Your task to perform on an android device: open app "Spotify: Music and Podcasts" (install if not already installed) and enter user name: "principled@inbox.com" and password: "arrests" Image 0: 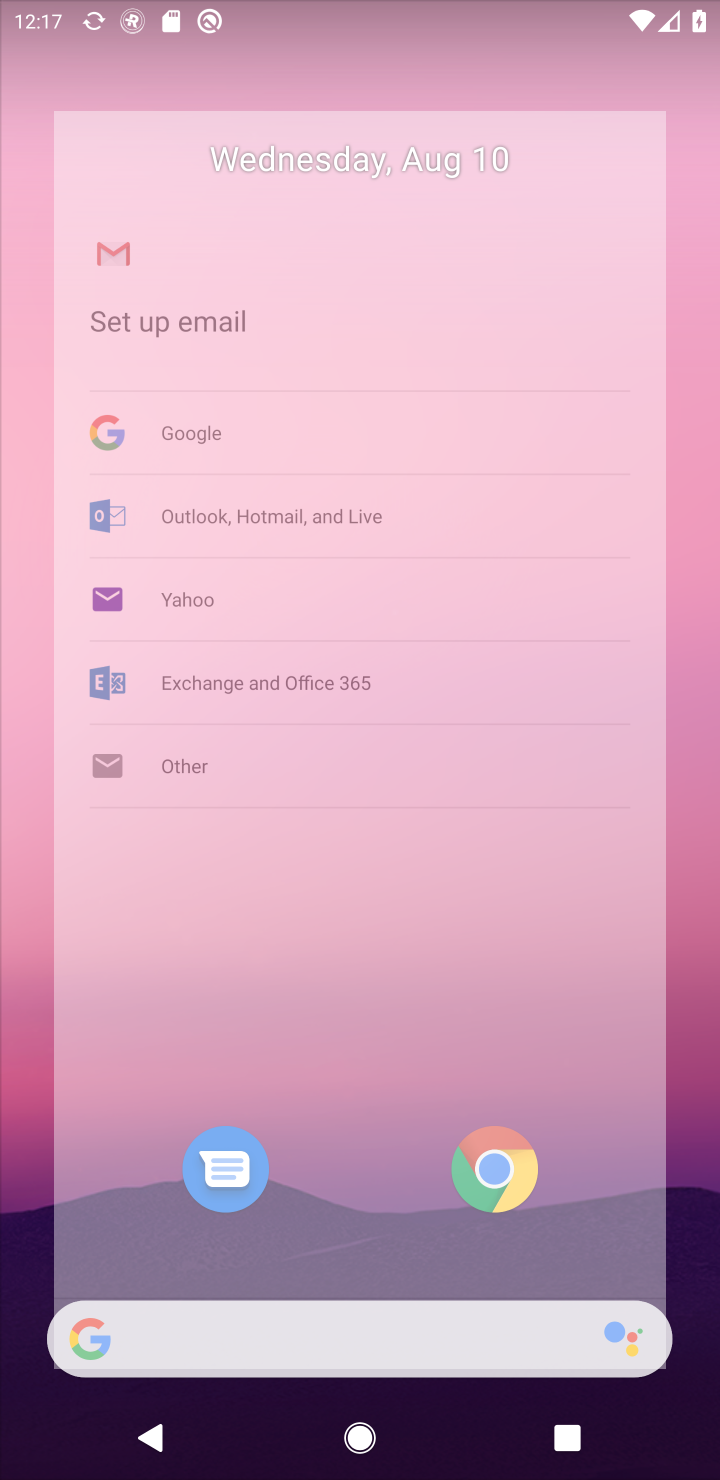
Step 0: press home button
Your task to perform on an android device: open app "Spotify: Music and Podcasts" (install if not already installed) and enter user name: "principled@inbox.com" and password: "arrests" Image 1: 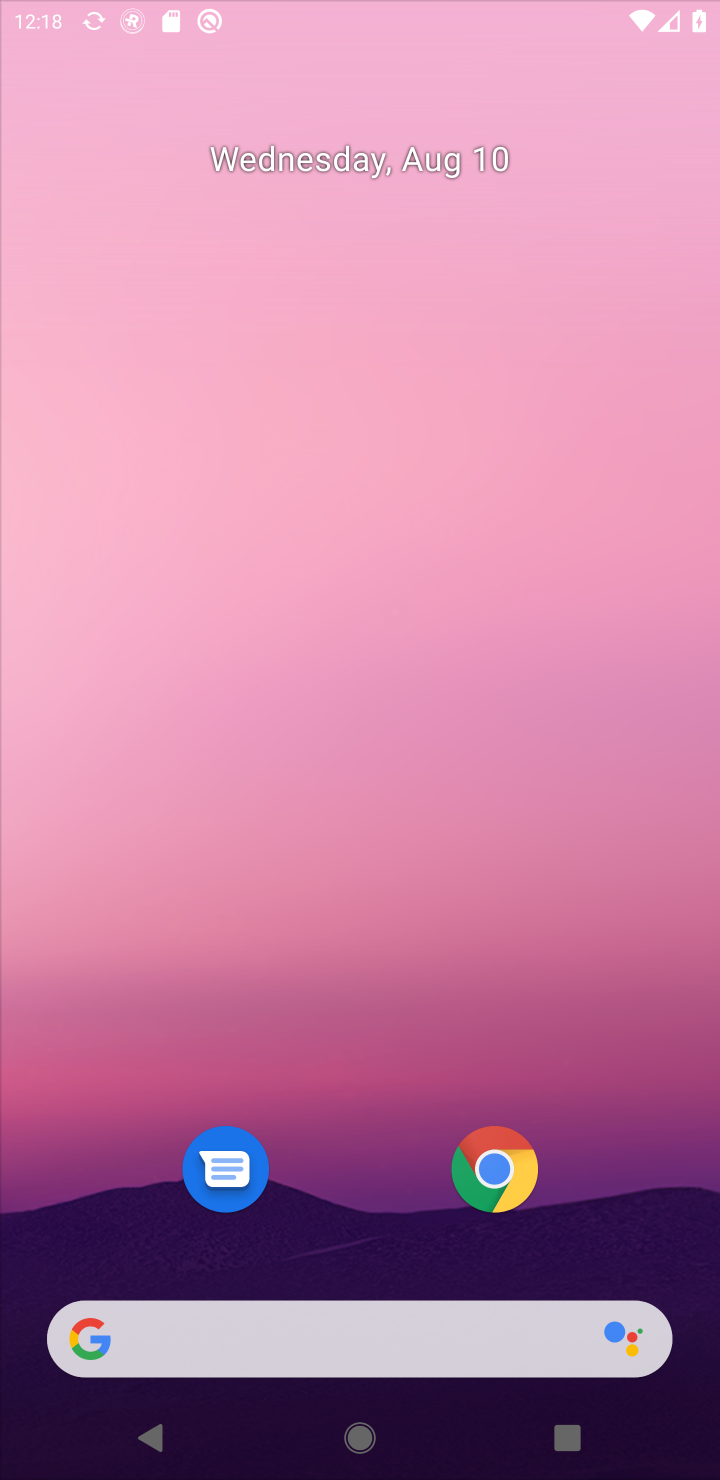
Step 1: press home button
Your task to perform on an android device: open app "Spotify: Music and Podcasts" (install if not already installed) and enter user name: "principled@inbox.com" and password: "arrests" Image 2: 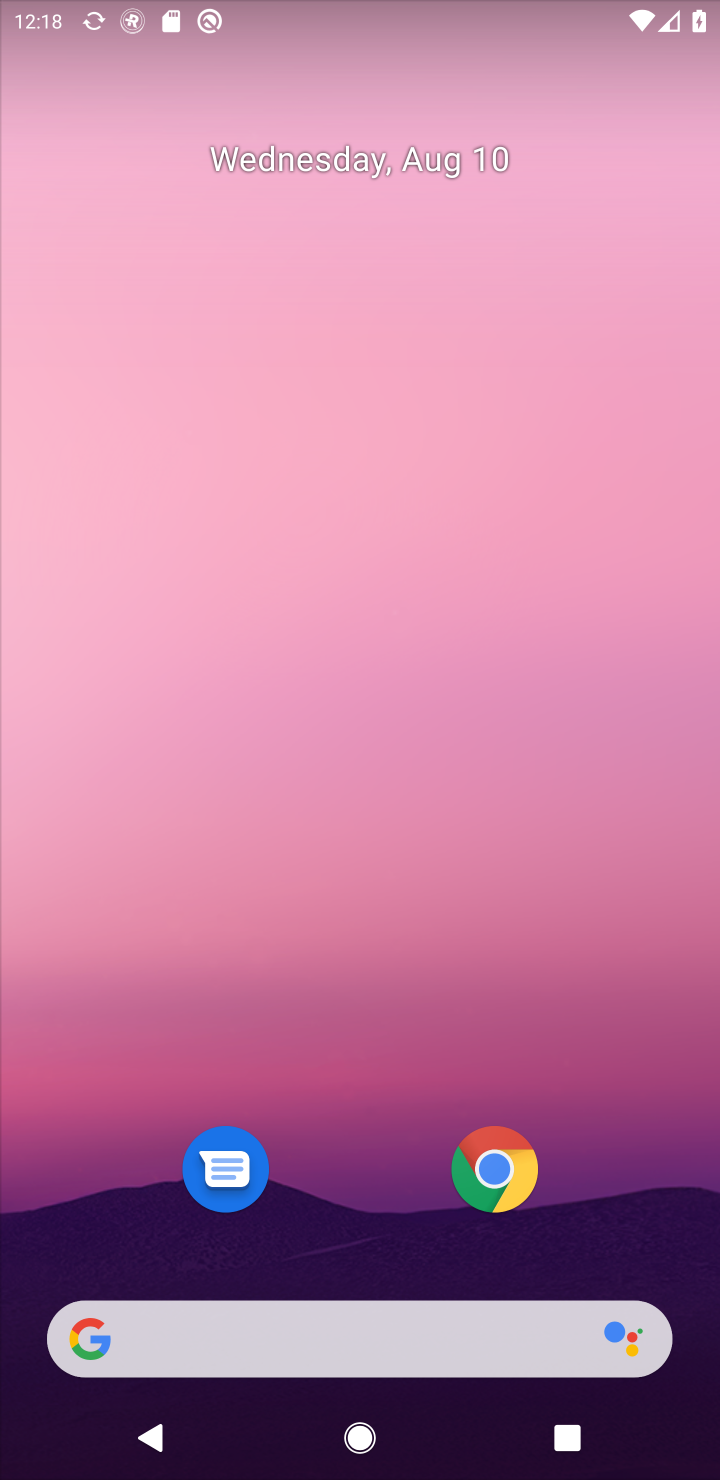
Step 2: drag from (616, 1239) to (668, 95)
Your task to perform on an android device: open app "Spotify: Music and Podcasts" (install if not already installed) and enter user name: "principled@inbox.com" and password: "arrests" Image 3: 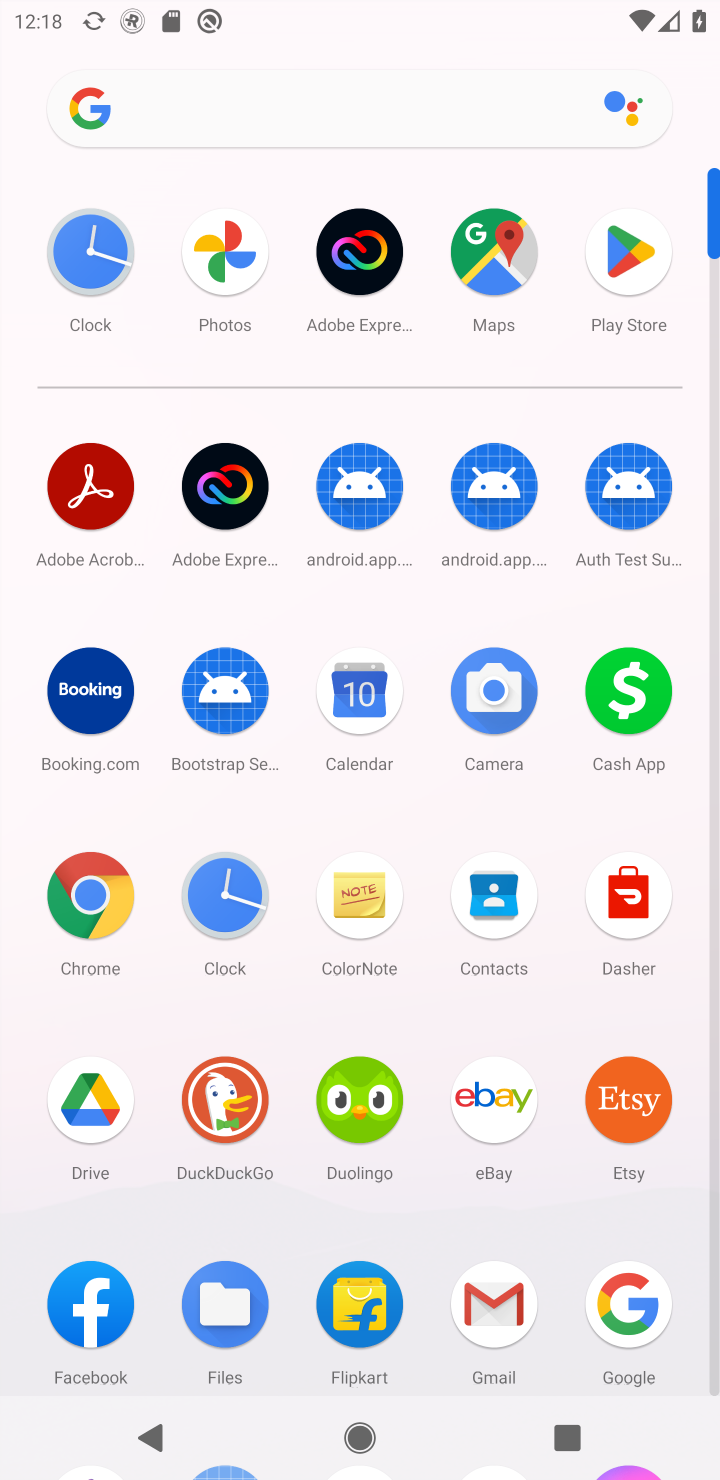
Step 3: click (628, 258)
Your task to perform on an android device: open app "Spotify: Music and Podcasts" (install if not already installed) and enter user name: "principled@inbox.com" and password: "arrests" Image 4: 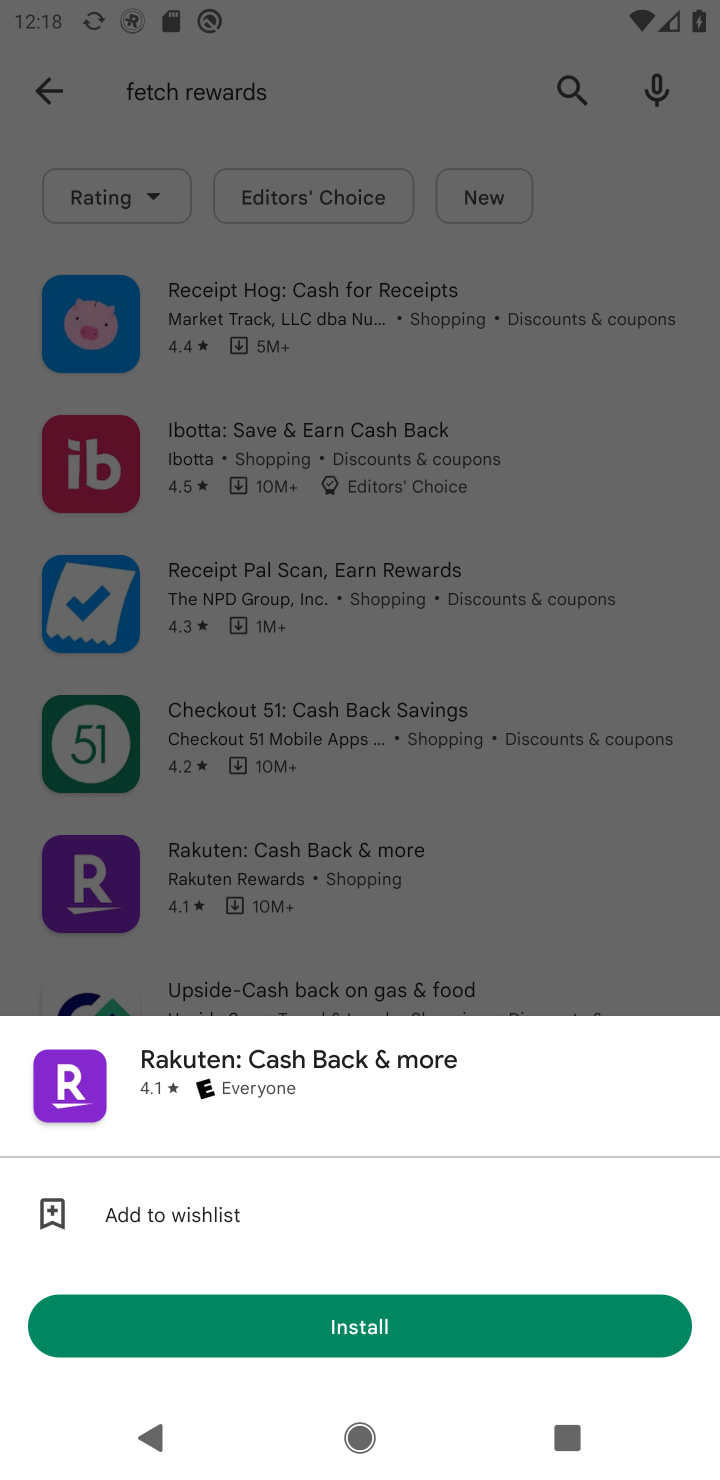
Step 4: press back button
Your task to perform on an android device: open app "Spotify: Music and Podcasts" (install if not already installed) and enter user name: "principled@inbox.com" and password: "arrests" Image 5: 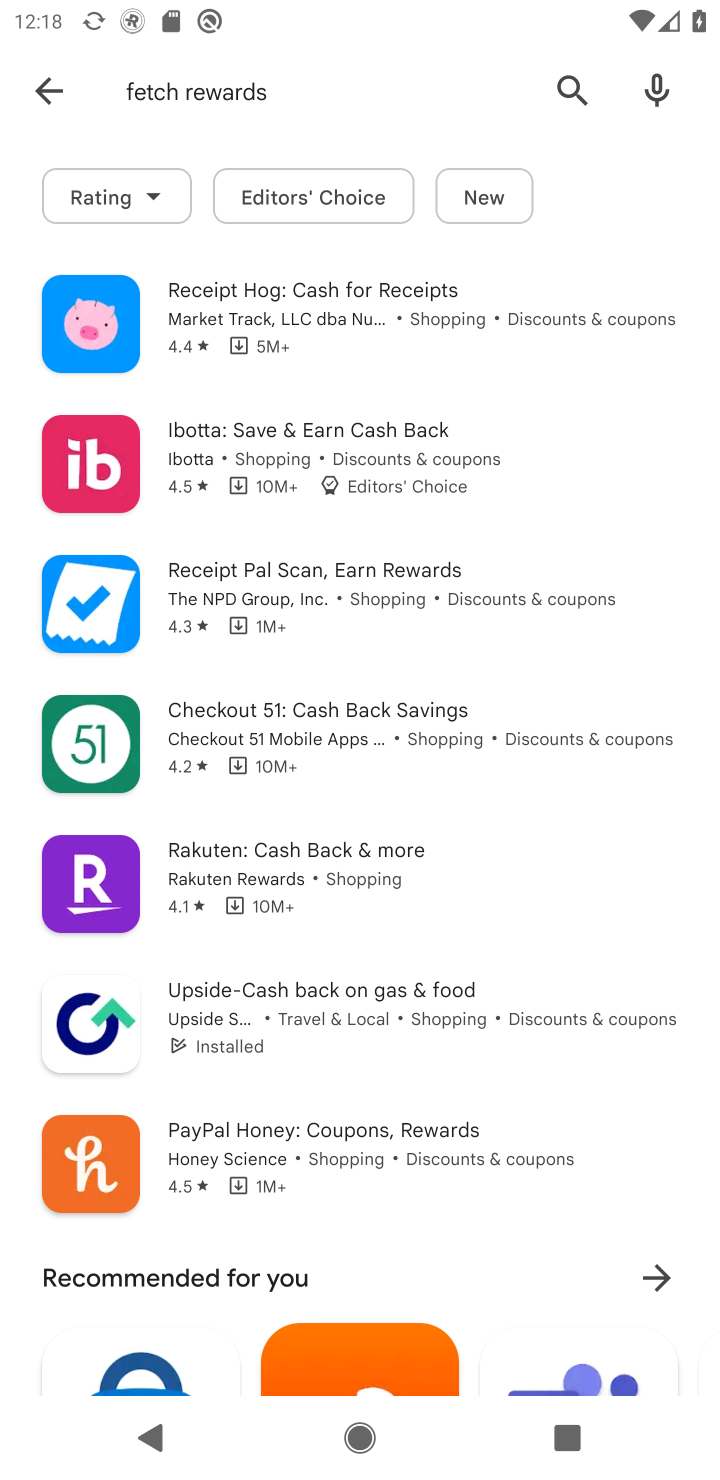
Step 5: click (578, 97)
Your task to perform on an android device: open app "Spotify: Music and Podcasts" (install if not already installed) and enter user name: "principled@inbox.com" and password: "arrests" Image 6: 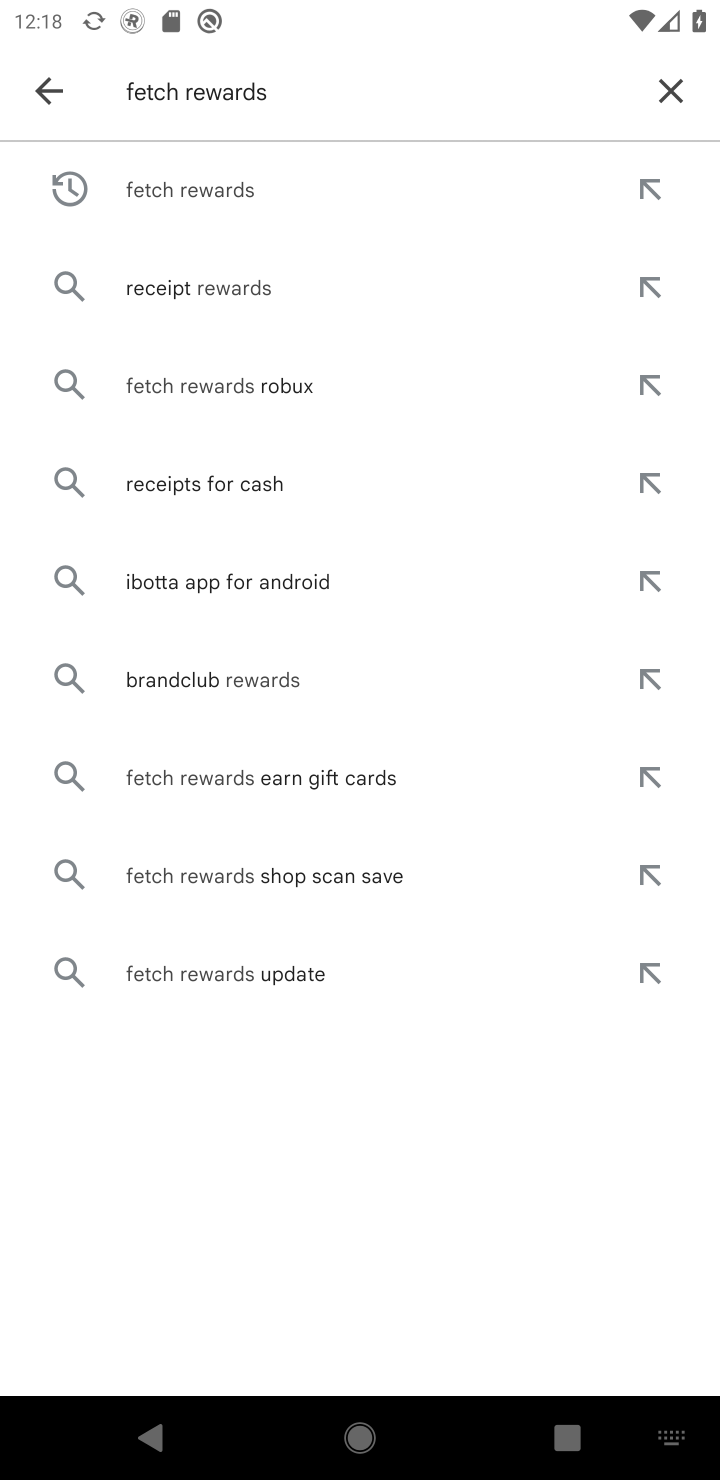
Step 6: click (672, 86)
Your task to perform on an android device: open app "Spotify: Music and Podcasts" (install if not already installed) and enter user name: "principled@inbox.com" and password: "arrests" Image 7: 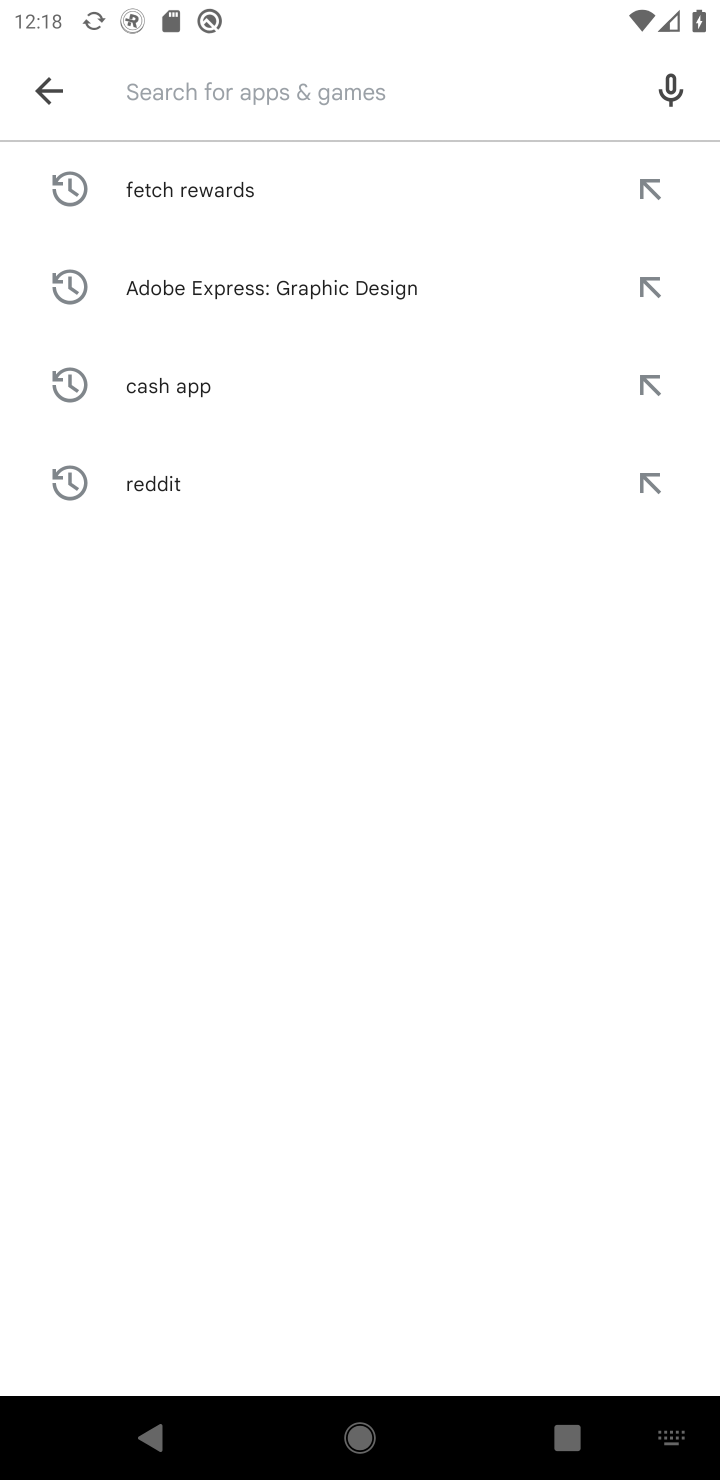
Step 7: press enter
Your task to perform on an android device: open app "Spotify: Music and Podcasts" (install if not already installed) and enter user name: "principled@inbox.com" and password: "arrests" Image 8: 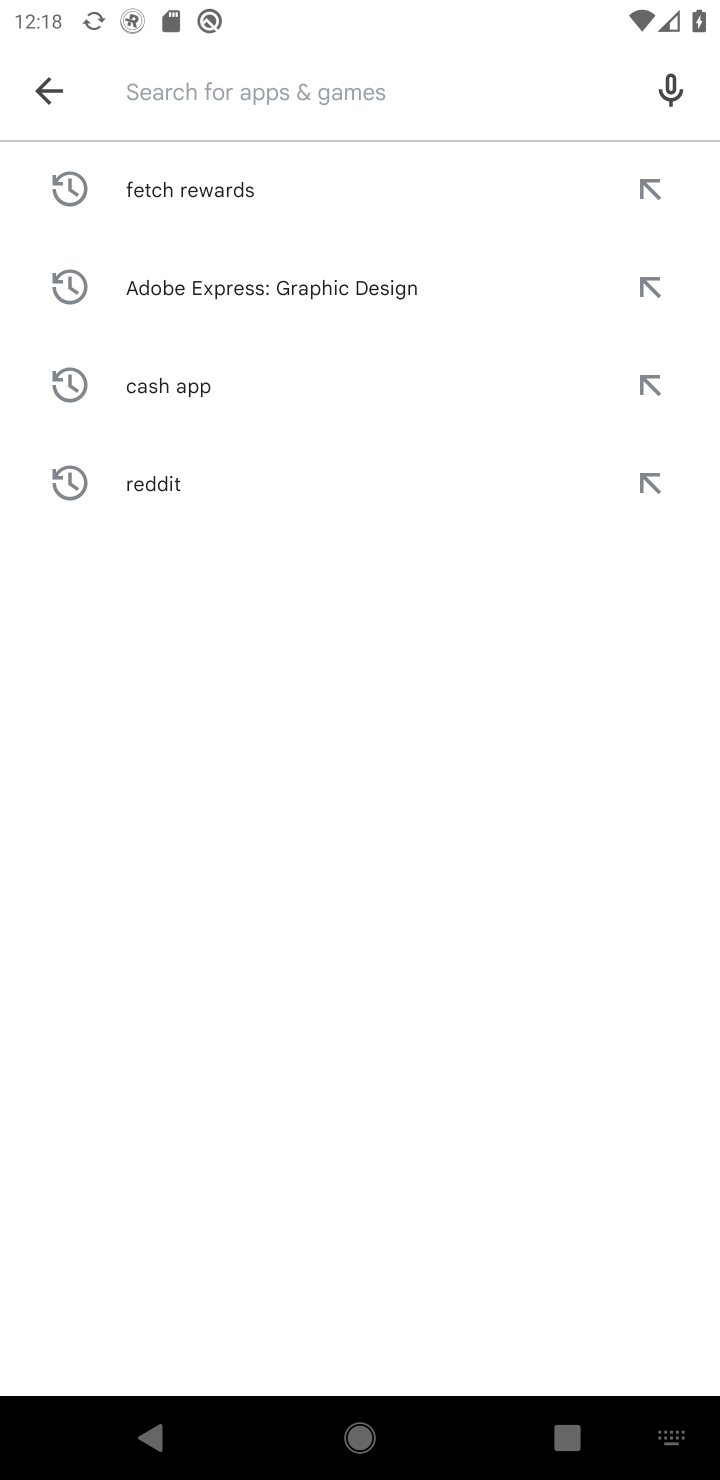
Step 8: type "Spotify: Music and Podcasts"
Your task to perform on an android device: open app "Spotify: Music and Podcasts" (install if not already installed) and enter user name: "principled@inbox.com" and password: "arrests" Image 9: 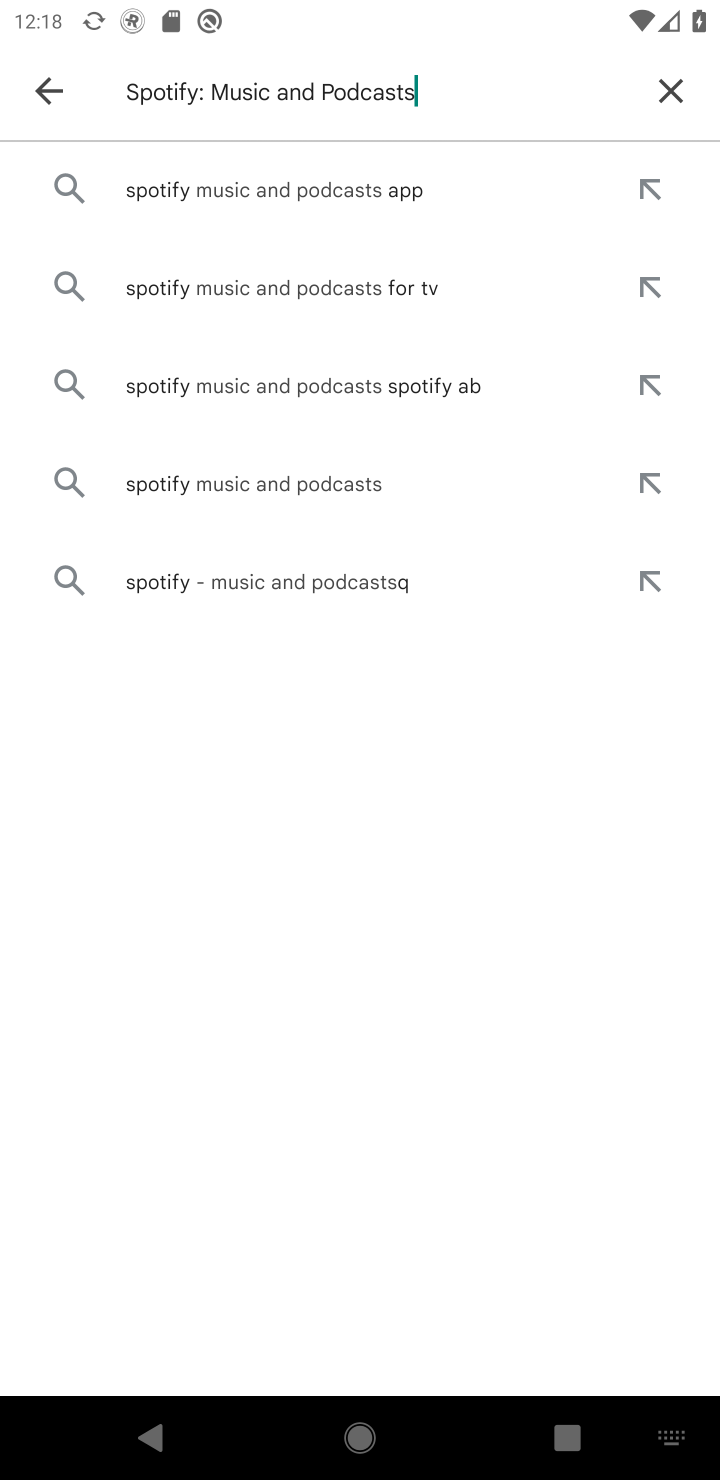
Step 9: click (337, 189)
Your task to perform on an android device: open app "Spotify: Music and Podcasts" (install if not already installed) and enter user name: "principled@inbox.com" and password: "arrests" Image 10: 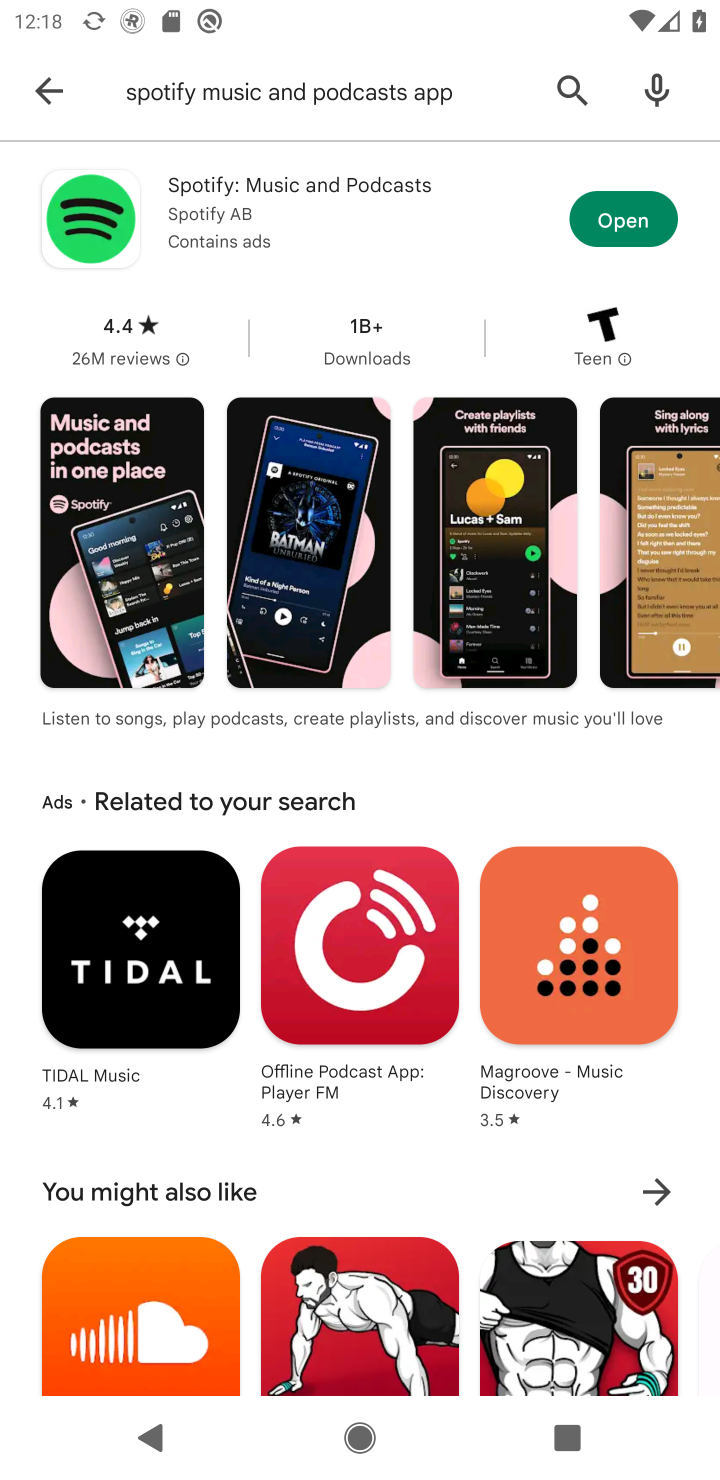
Step 10: click (629, 229)
Your task to perform on an android device: open app "Spotify: Music and Podcasts" (install if not already installed) and enter user name: "principled@inbox.com" and password: "arrests" Image 11: 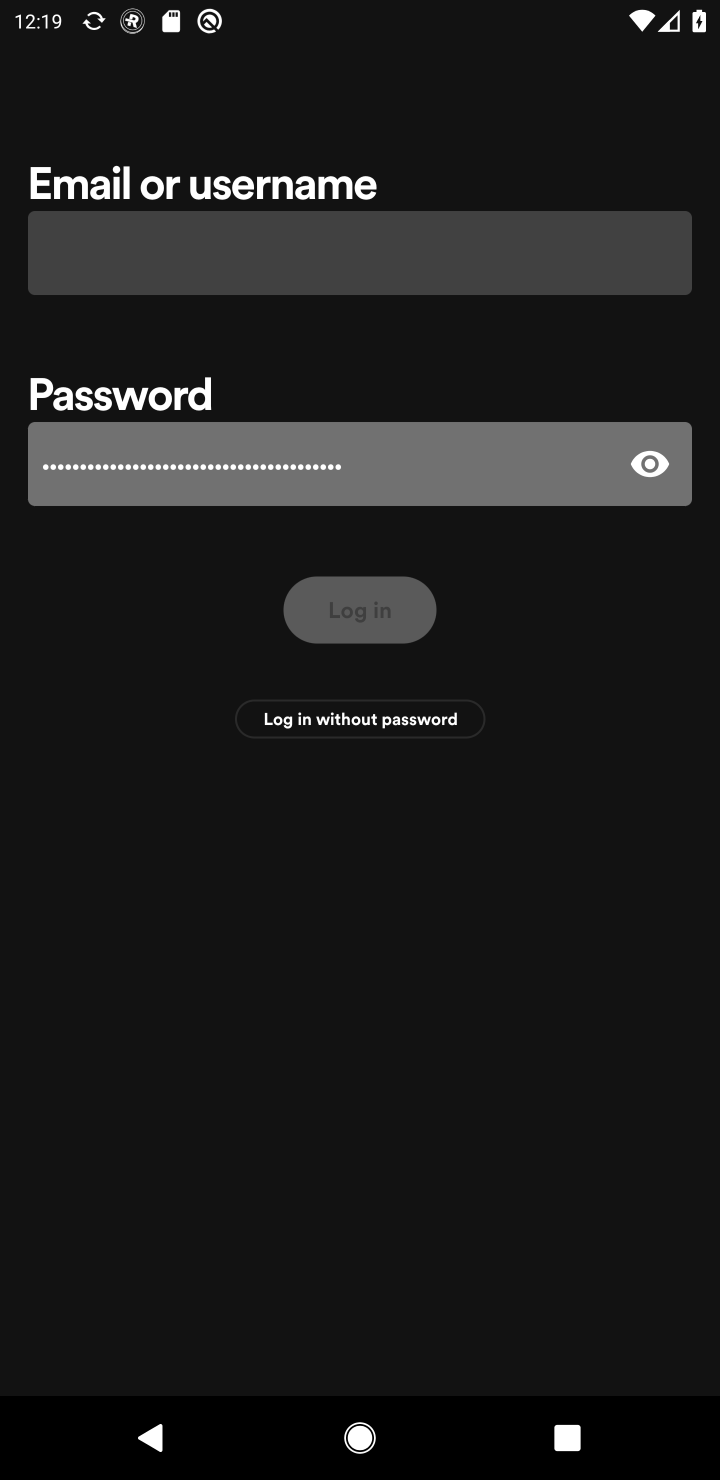
Step 11: click (437, 240)
Your task to perform on an android device: open app "Spotify: Music and Podcasts" (install if not already installed) and enter user name: "principled@inbox.com" and password: "arrests" Image 12: 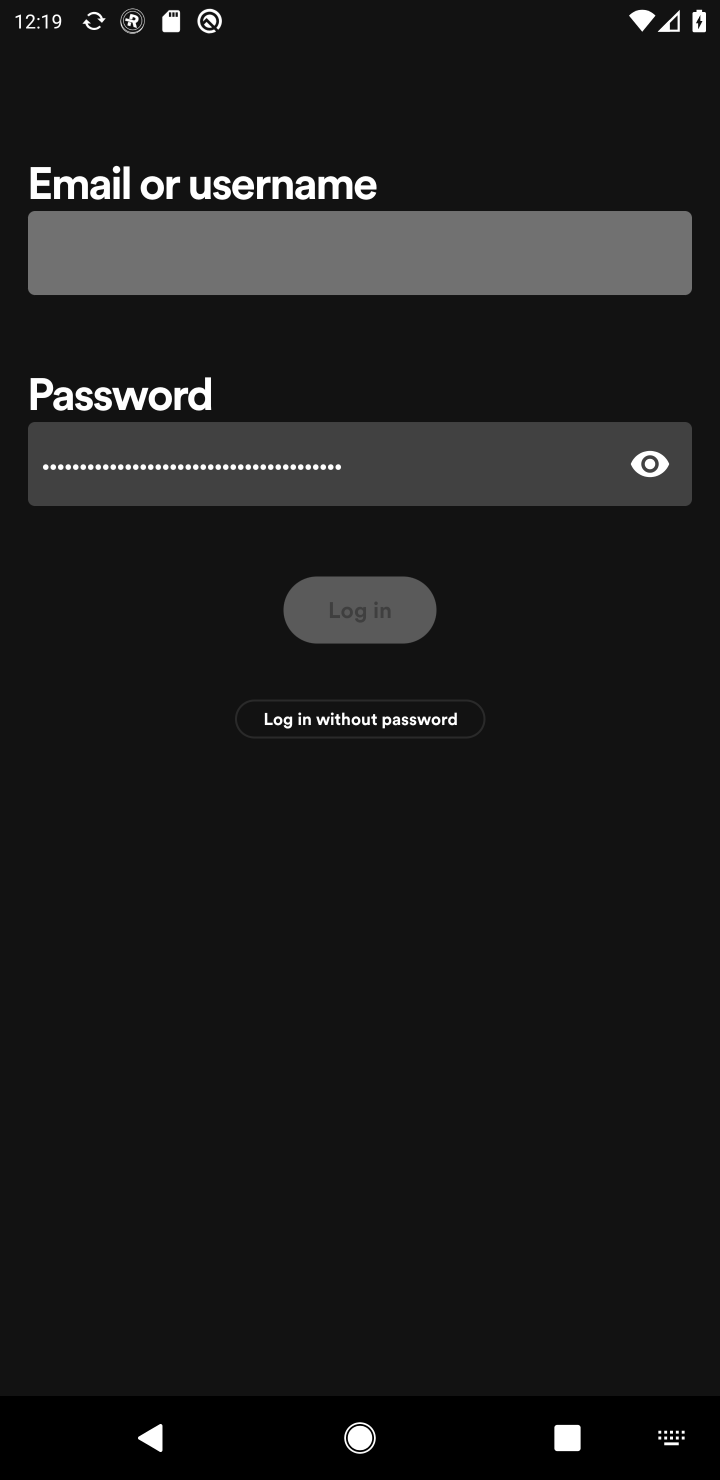
Step 12: click (446, 468)
Your task to perform on an android device: open app "Spotify: Music and Podcasts" (install if not already installed) and enter user name: "principled@inbox.com" and password: "arrests" Image 13: 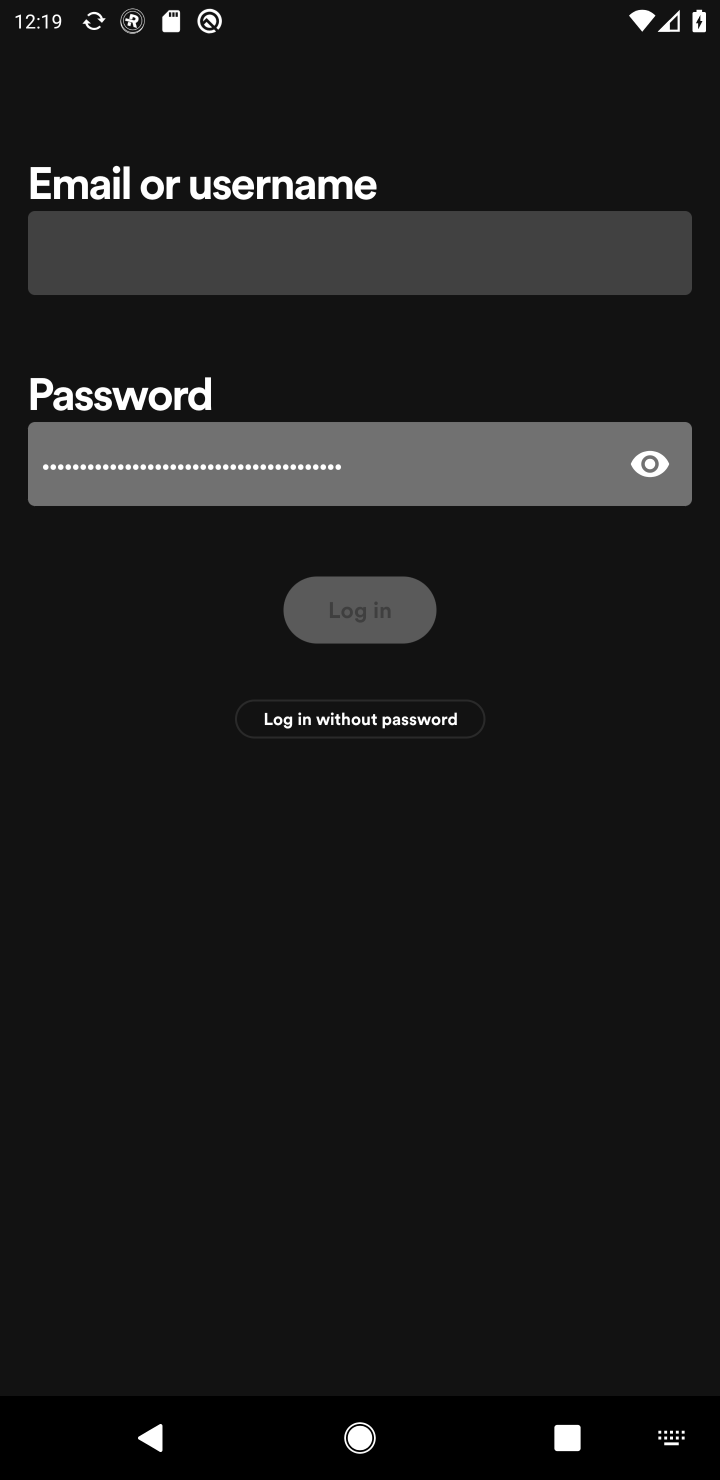
Step 13: click (300, 254)
Your task to perform on an android device: open app "Spotify: Music and Podcasts" (install if not already installed) and enter user name: "principled@inbox.com" and password: "arrests" Image 14: 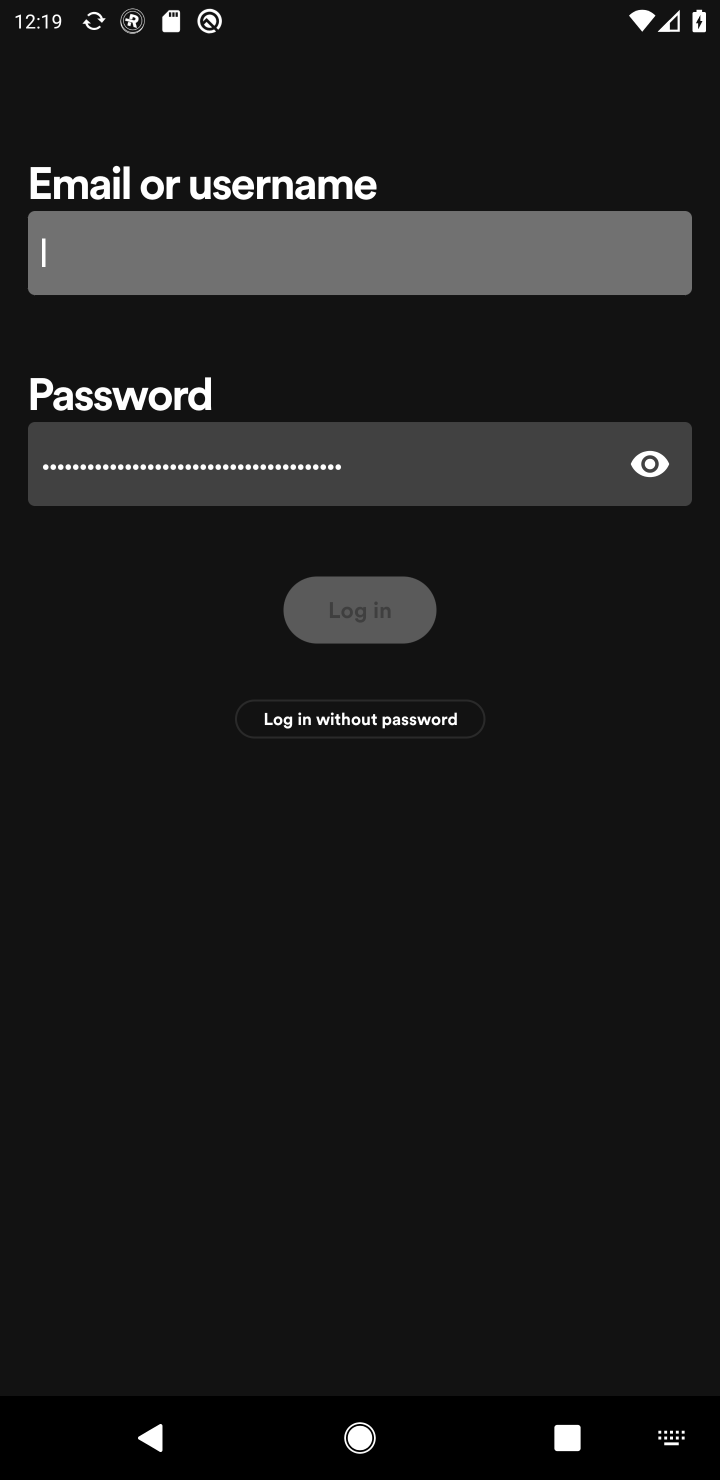
Step 14: type "principled@inbox.com"
Your task to perform on an android device: open app "Spotify: Music and Podcasts" (install if not already installed) and enter user name: "principled@inbox.com" and password: "arrests" Image 15: 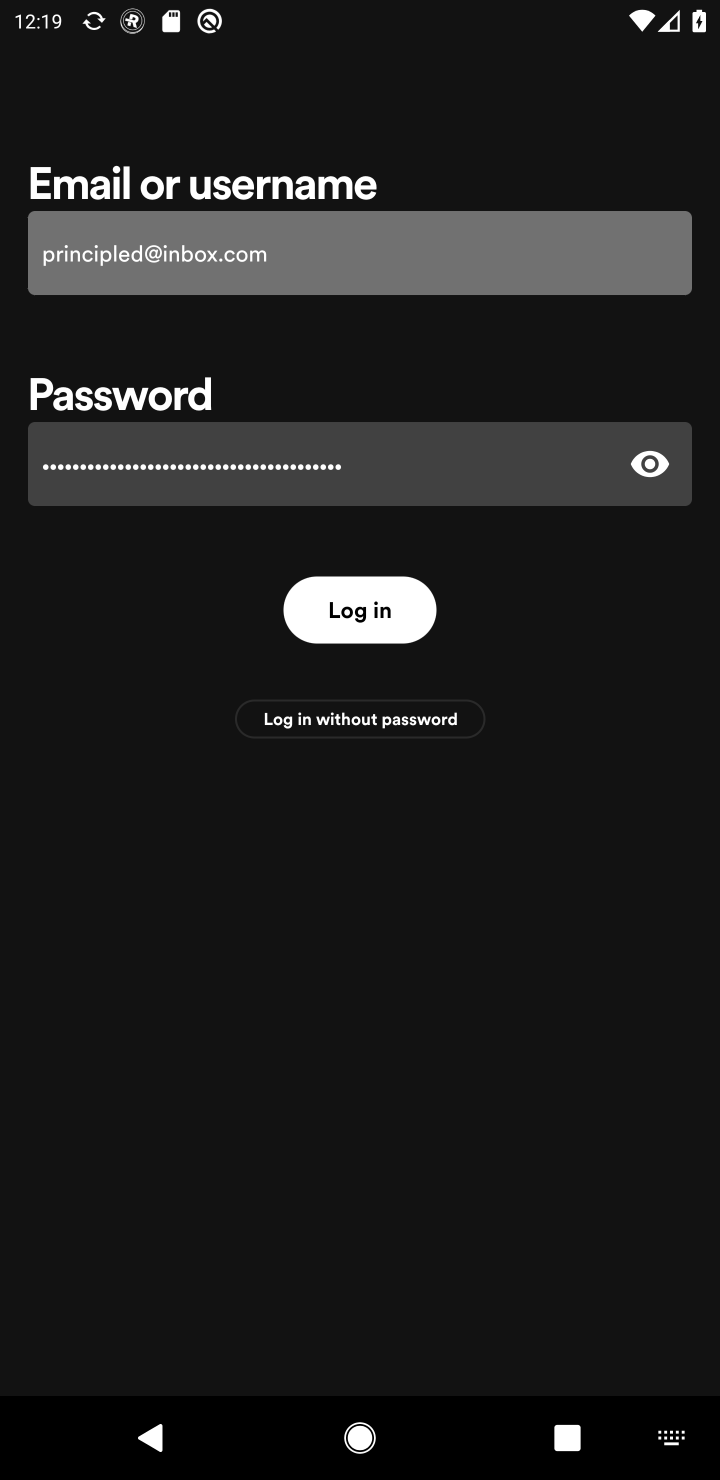
Step 15: click (407, 467)
Your task to perform on an android device: open app "Spotify: Music and Podcasts" (install if not already installed) and enter user name: "principled@inbox.com" and password: "arrests" Image 16: 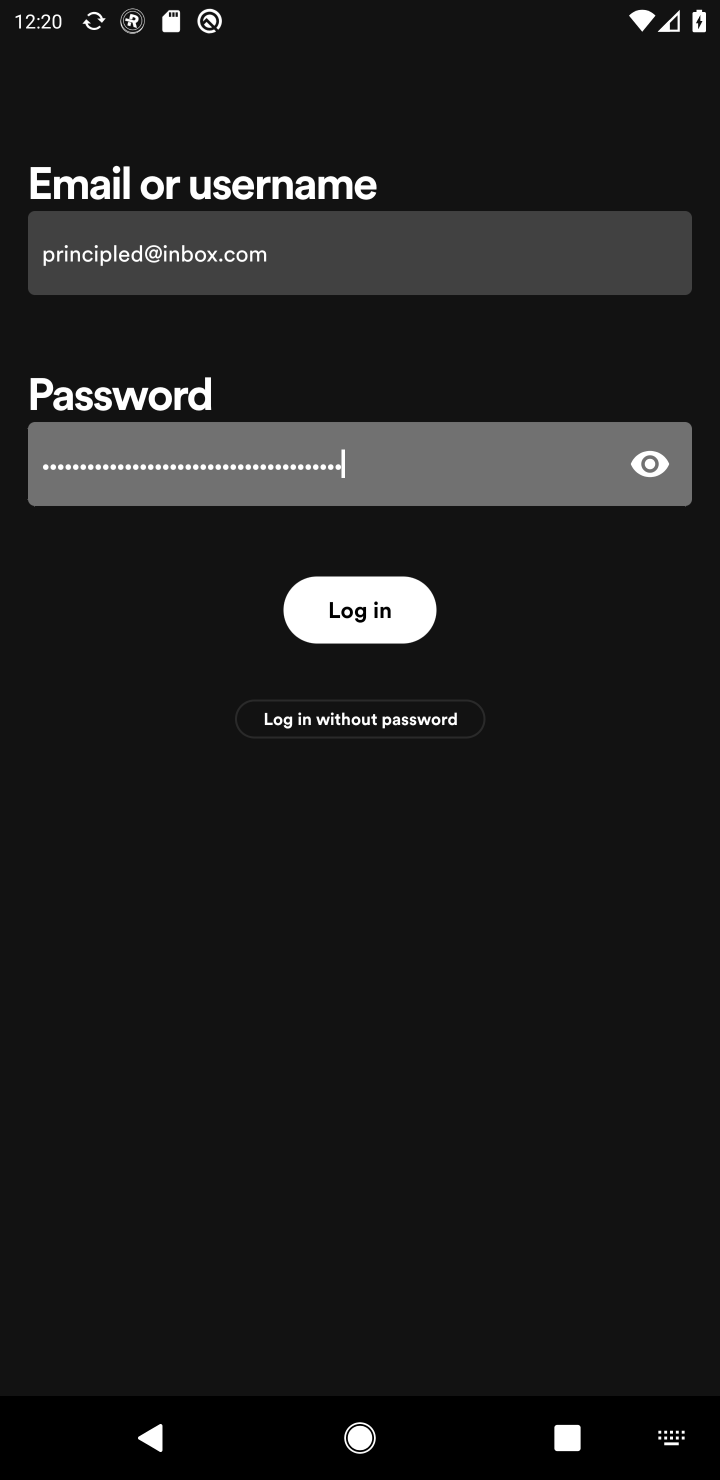
Step 16: type "arrests"
Your task to perform on an android device: open app "Spotify: Music and Podcasts" (install if not already installed) and enter user name: "principled@inbox.com" and password: "arrests" Image 17: 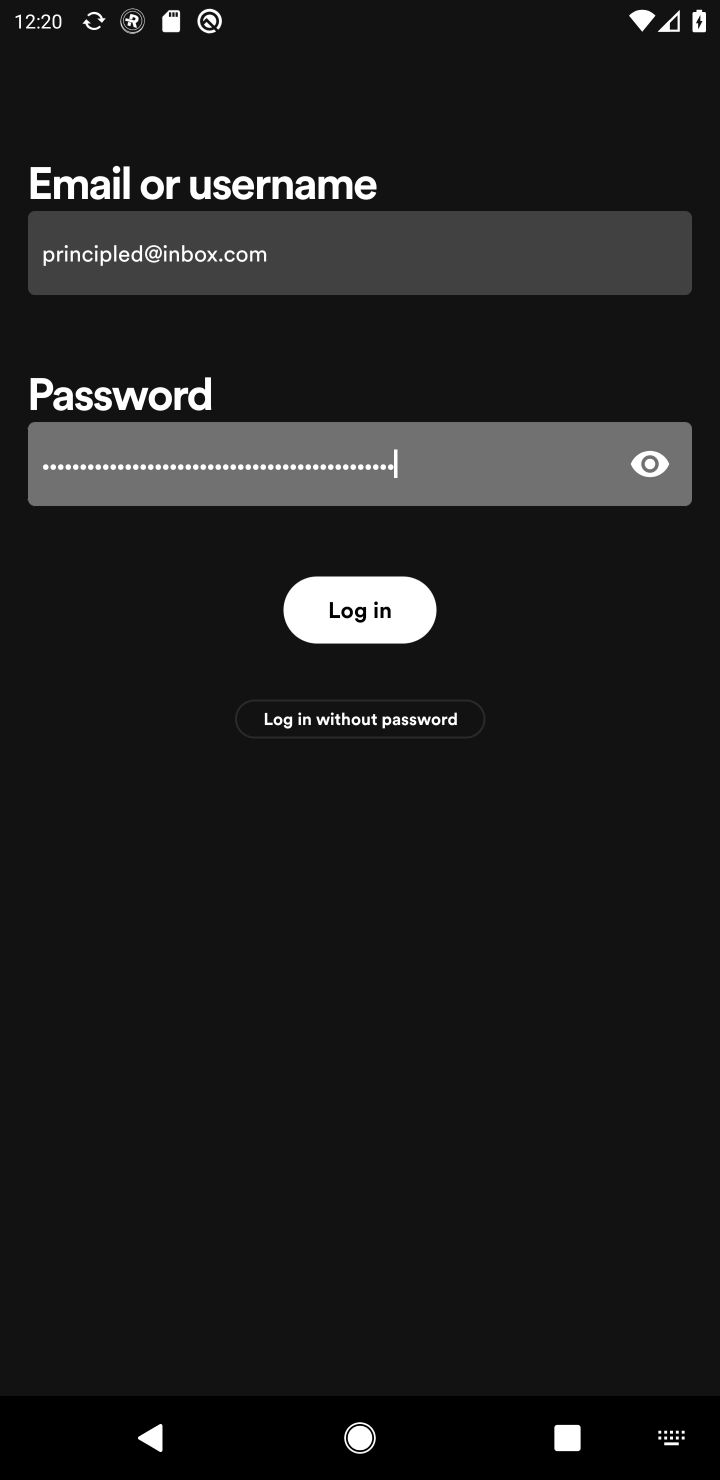
Step 17: task complete